Your task to perform on an android device: open app "File Manager" Image 0: 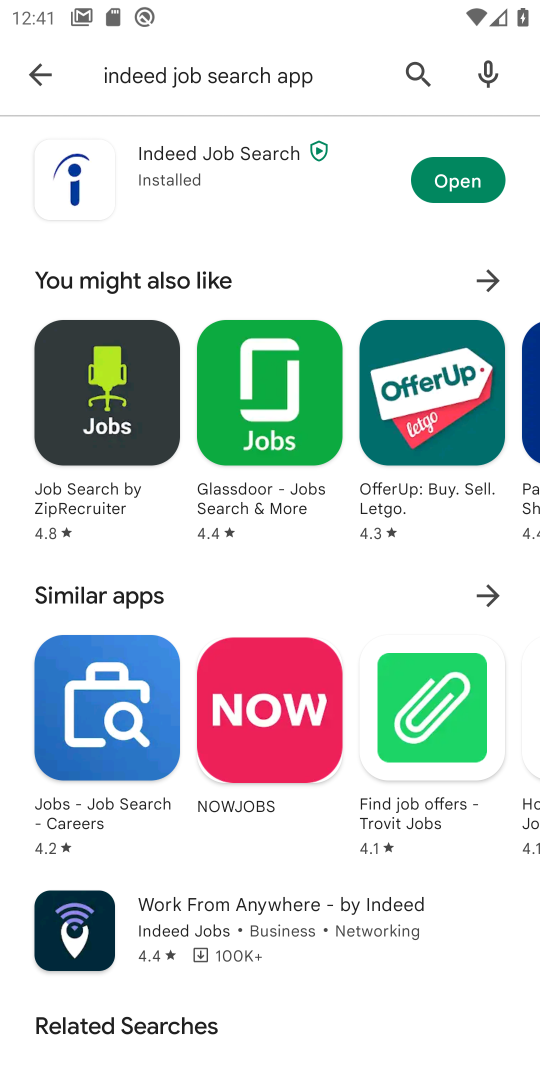
Step 0: click (409, 63)
Your task to perform on an android device: open app "File Manager" Image 1: 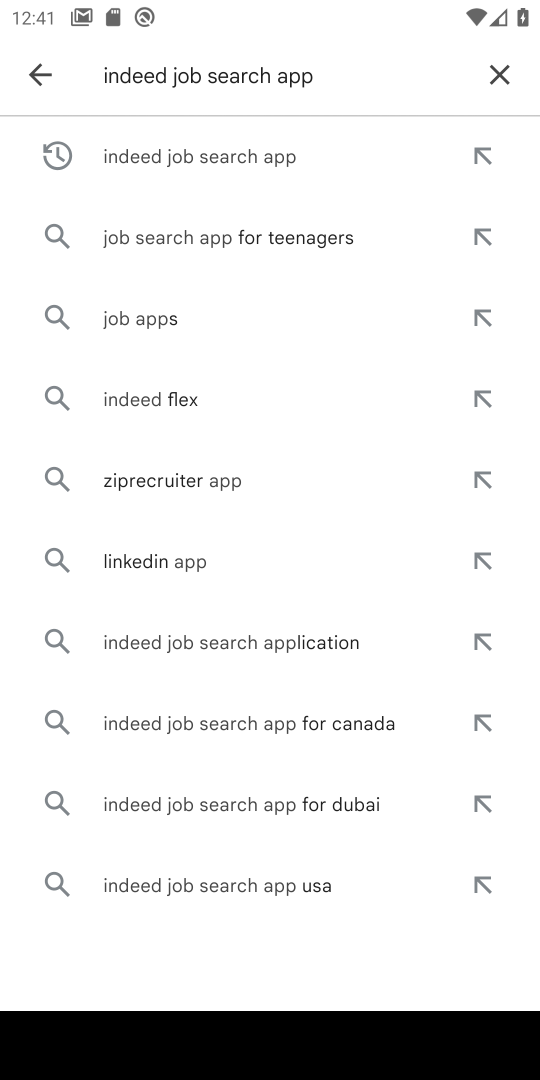
Step 1: click (493, 78)
Your task to perform on an android device: open app "File Manager" Image 2: 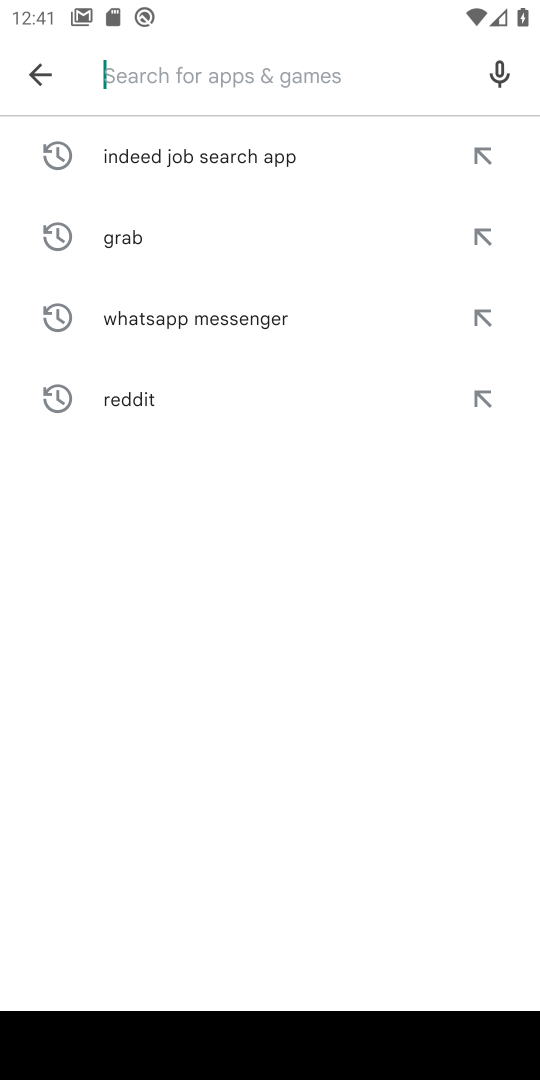
Step 2: type "File Manager"
Your task to perform on an android device: open app "File Manager" Image 3: 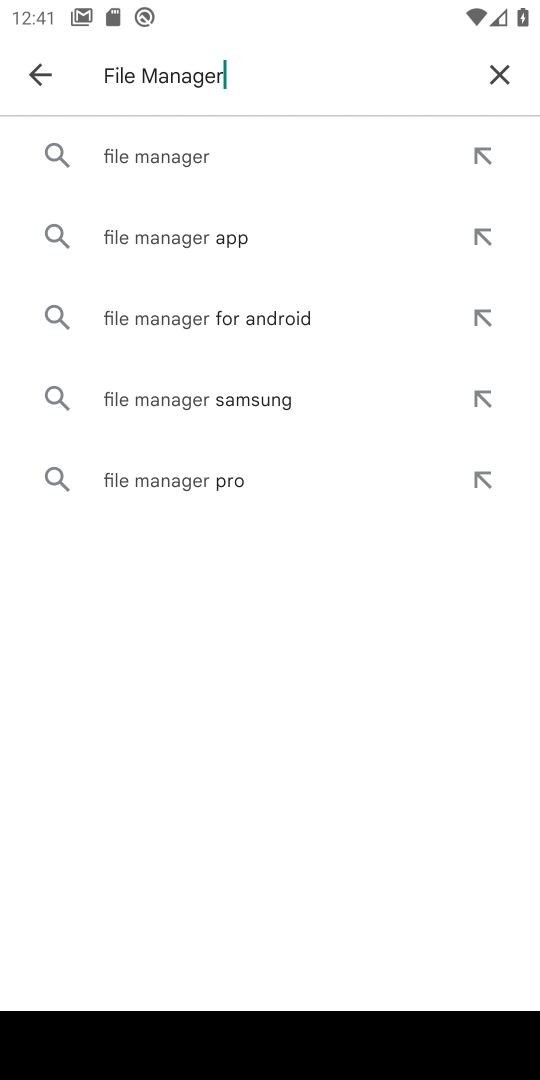
Step 3: click (252, 140)
Your task to perform on an android device: open app "File Manager" Image 4: 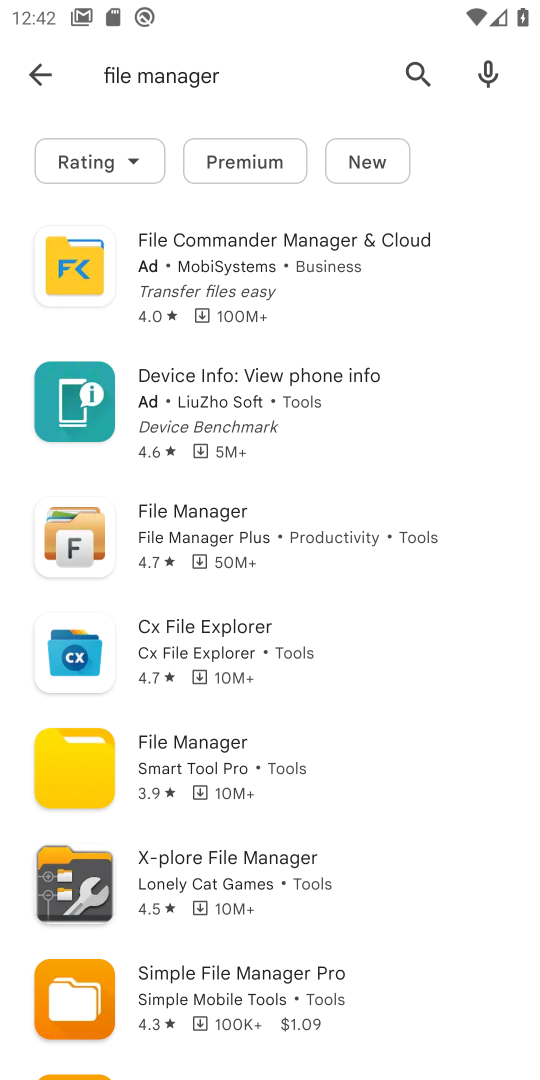
Step 4: click (254, 784)
Your task to perform on an android device: open app "File Manager" Image 5: 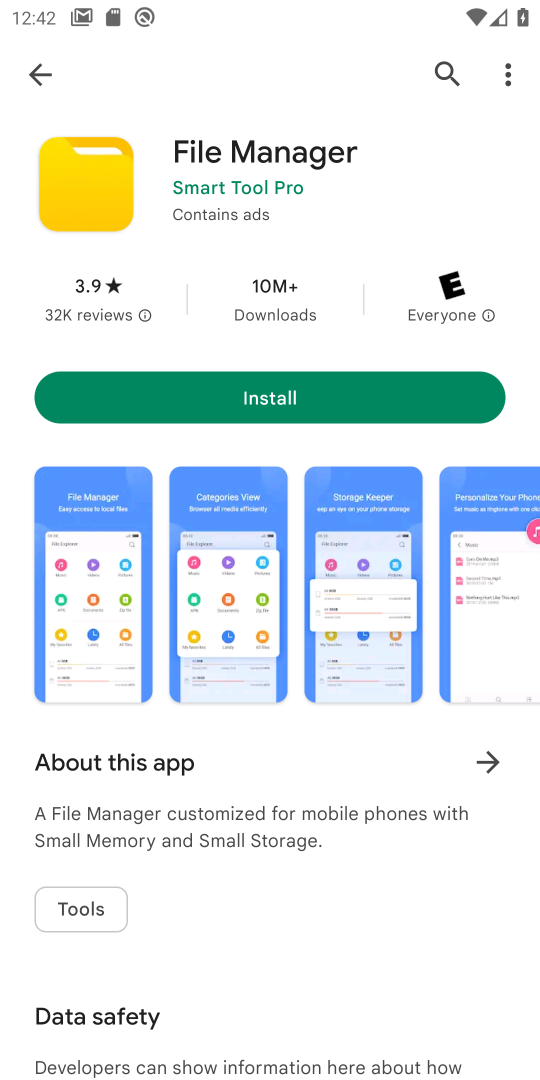
Step 5: task complete